Your task to perform on an android device: search for starred emails in the gmail app Image 0: 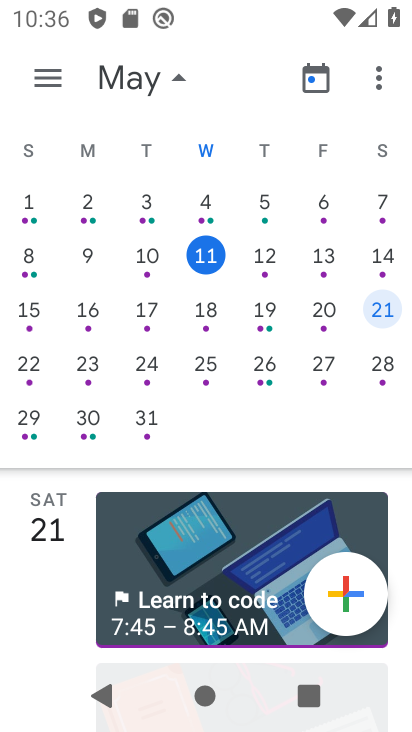
Step 0: press home button
Your task to perform on an android device: search for starred emails in the gmail app Image 1: 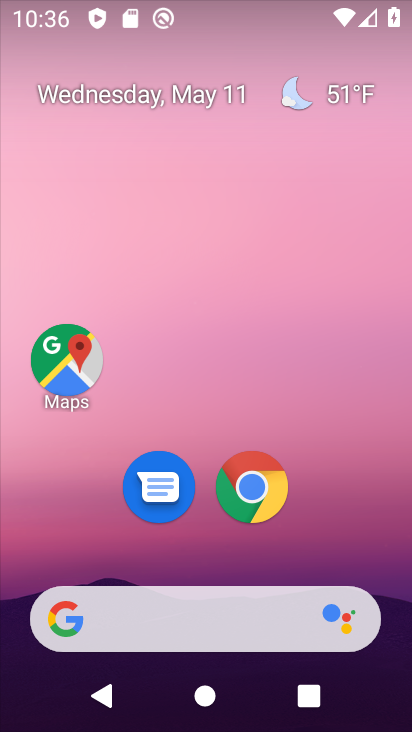
Step 1: drag from (353, 538) to (363, 148)
Your task to perform on an android device: search for starred emails in the gmail app Image 2: 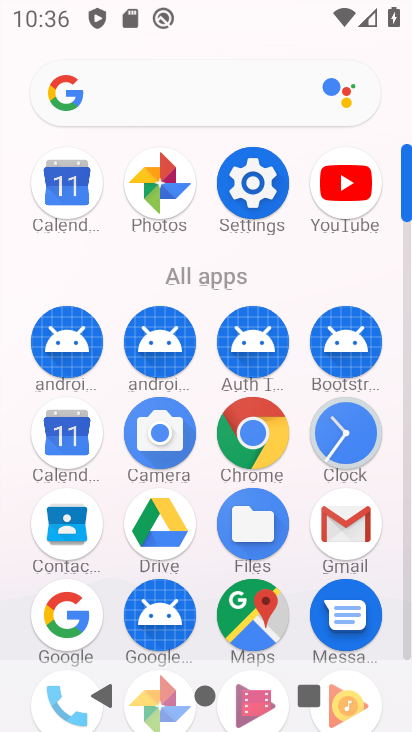
Step 2: click (355, 537)
Your task to perform on an android device: search for starred emails in the gmail app Image 3: 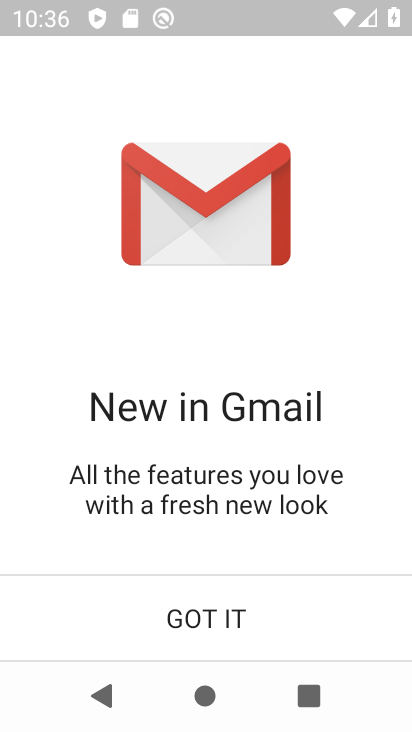
Step 3: click (214, 632)
Your task to perform on an android device: search for starred emails in the gmail app Image 4: 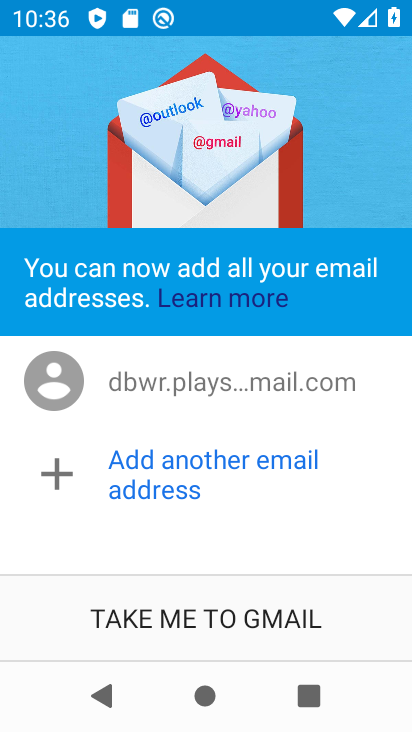
Step 4: click (215, 626)
Your task to perform on an android device: search for starred emails in the gmail app Image 5: 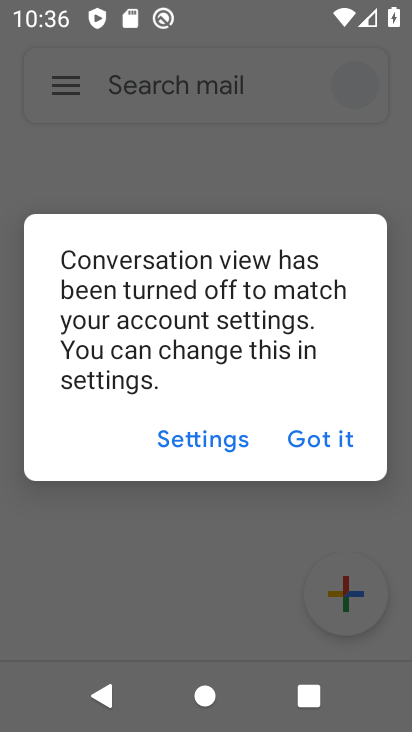
Step 5: click (305, 446)
Your task to perform on an android device: search for starred emails in the gmail app Image 6: 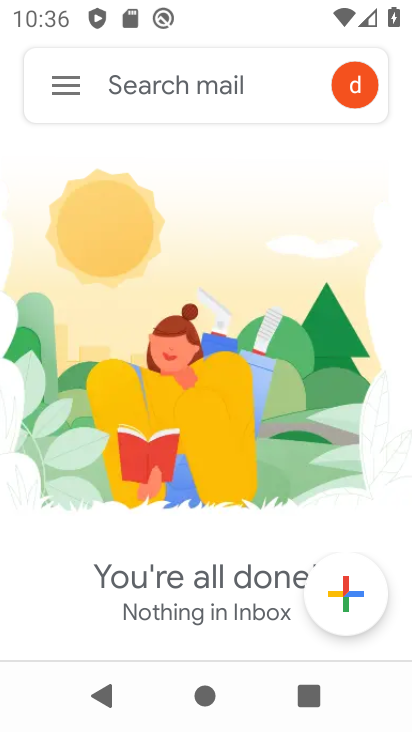
Step 6: click (67, 87)
Your task to perform on an android device: search for starred emails in the gmail app Image 7: 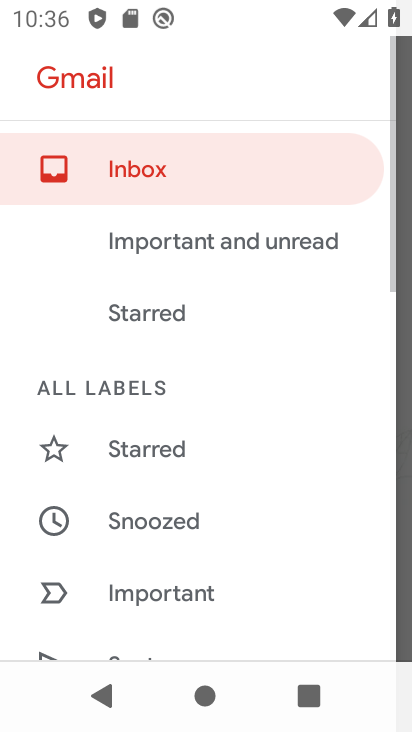
Step 7: click (188, 456)
Your task to perform on an android device: search for starred emails in the gmail app Image 8: 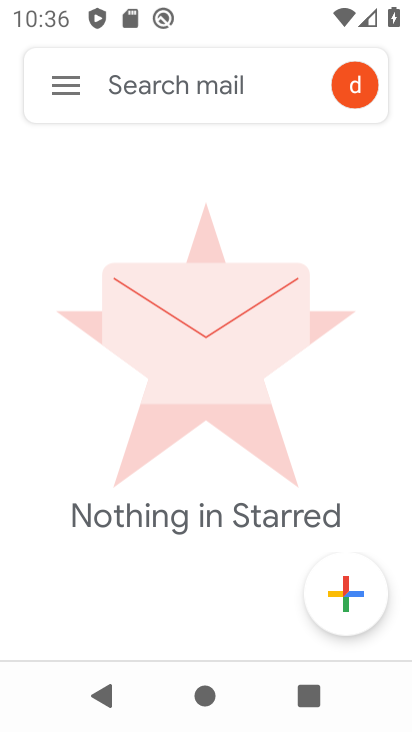
Step 8: task complete